Your task to perform on an android device: turn on wifi Image 0: 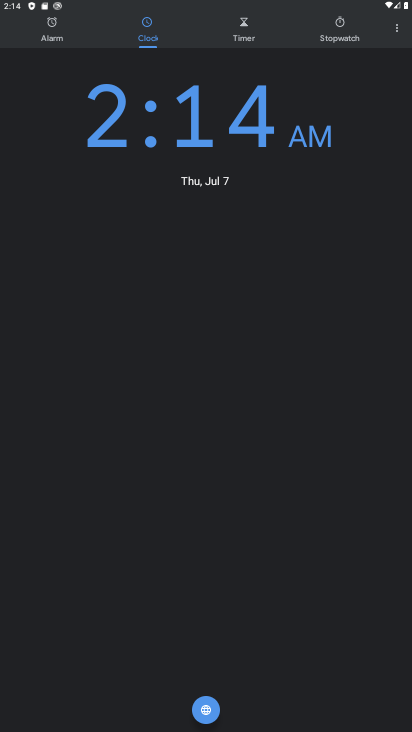
Step 0: press home button
Your task to perform on an android device: turn on wifi Image 1: 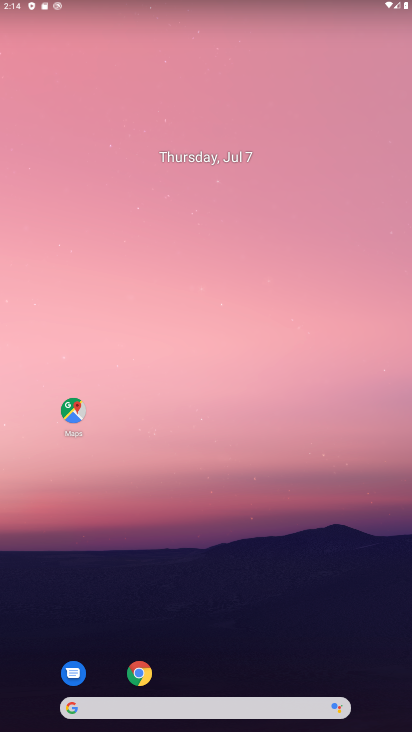
Step 1: drag from (250, 681) to (258, 31)
Your task to perform on an android device: turn on wifi Image 2: 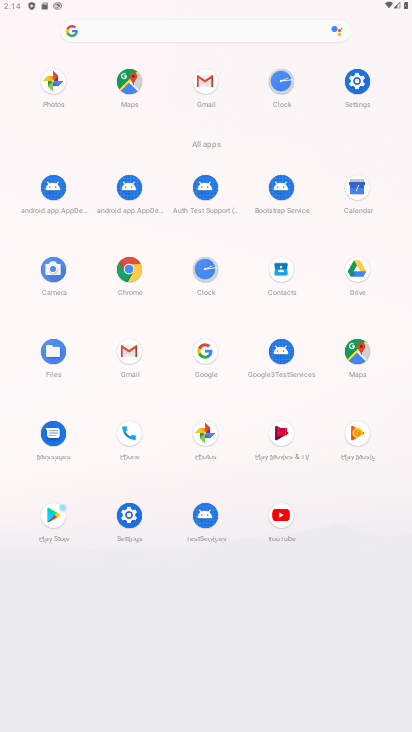
Step 2: click (356, 84)
Your task to perform on an android device: turn on wifi Image 3: 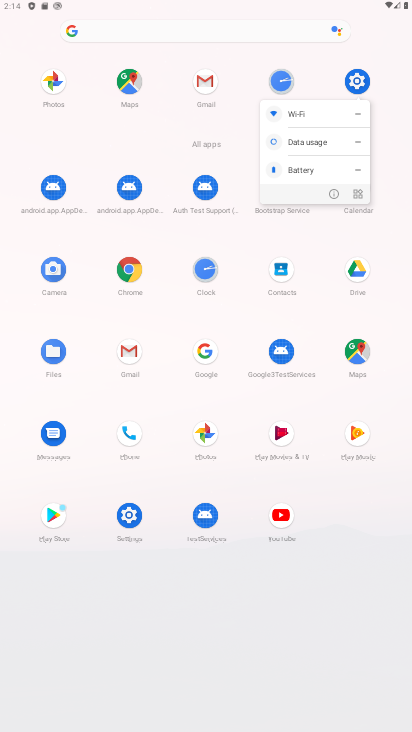
Step 3: click (341, 78)
Your task to perform on an android device: turn on wifi Image 4: 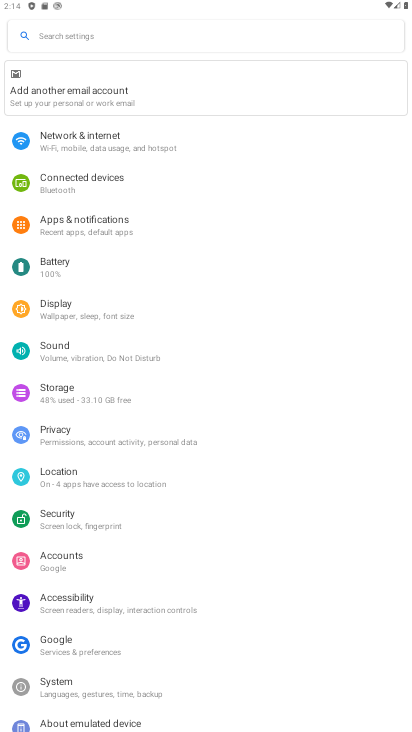
Step 4: click (93, 133)
Your task to perform on an android device: turn on wifi Image 5: 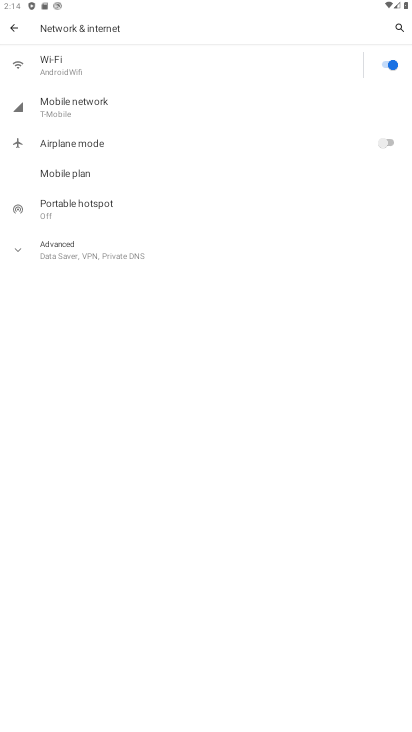
Step 5: click (57, 67)
Your task to perform on an android device: turn on wifi Image 6: 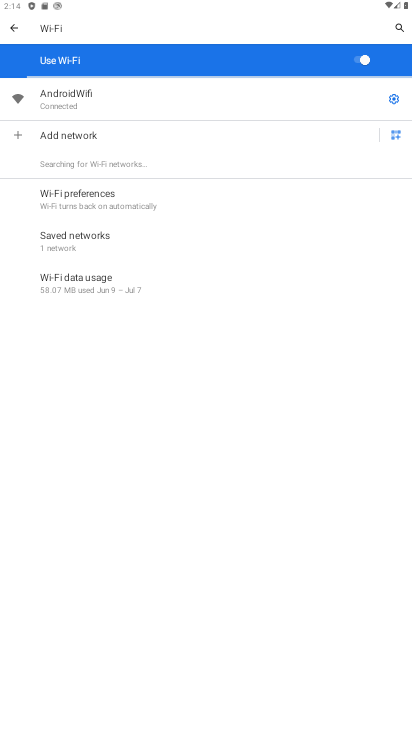
Step 6: task complete